Your task to perform on an android device: Go to battery settings Image 0: 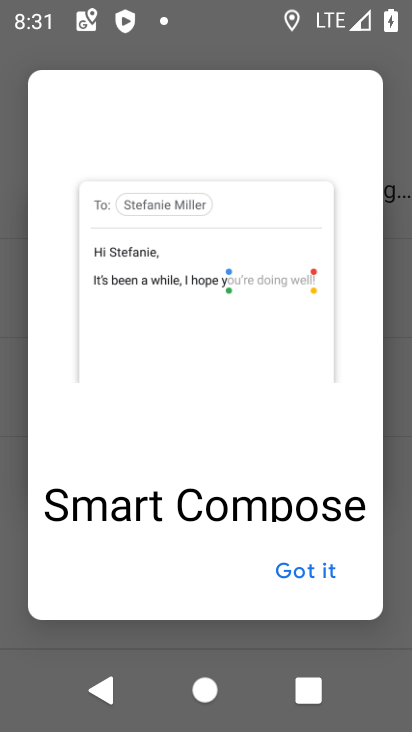
Step 0: press home button
Your task to perform on an android device: Go to battery settings Image 1: 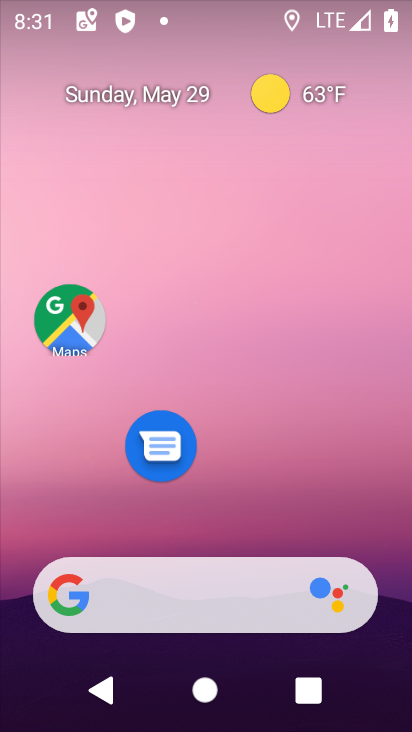
Step 1: drag from (191, 516) to (195, 172)
Your task to perform on an android device: Go to battery settings Image 2: 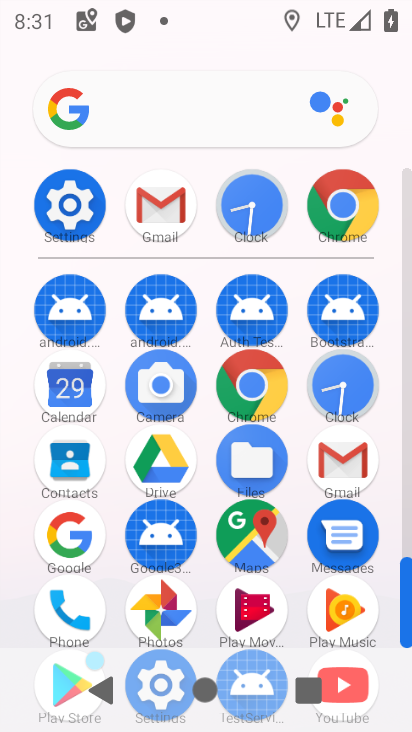
Step 2: click (50, 222)
Your task to perform on an android device: Go to battery settings Image 3: 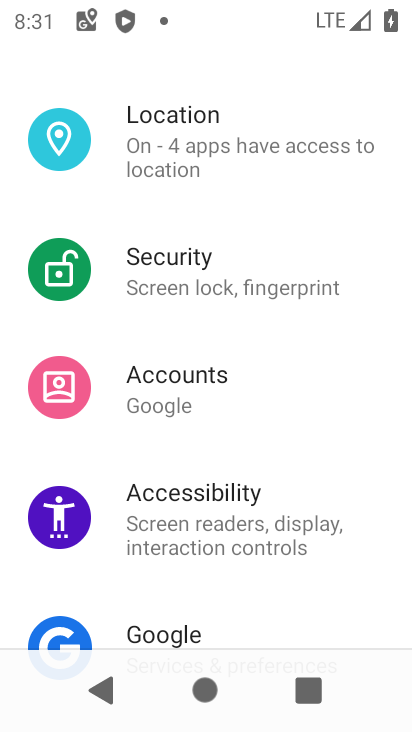
Step 3: drag from (238, 239) to (246, 445)
Your task to perform on an android device: Go to battery settings Image 4: 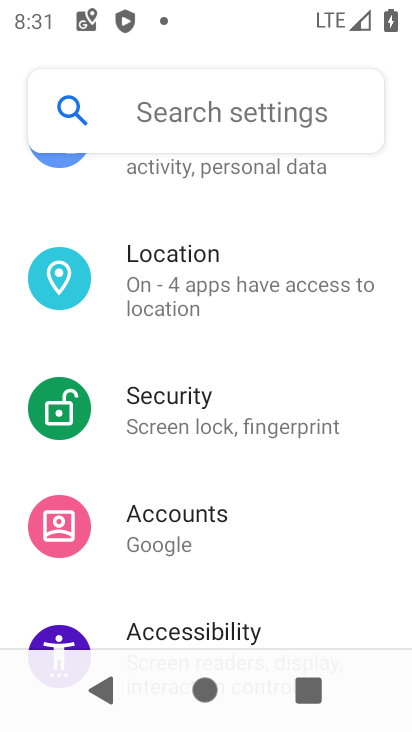
Step 4: drag from (206, 206) to (199, 485)
Your task to perform on an android device: Go to battery settings Image 5: 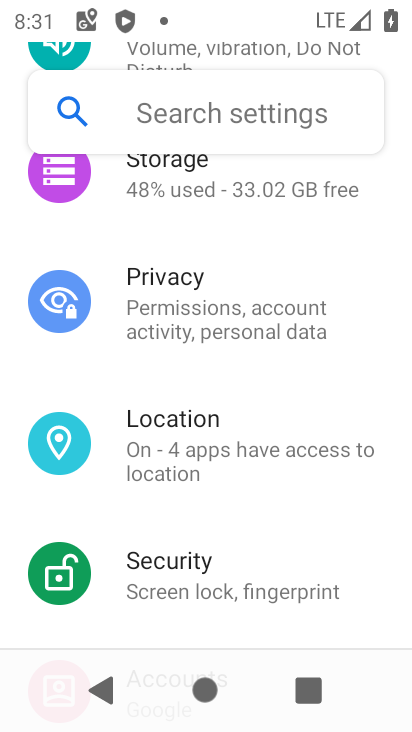
Step 5: drag from (217, 278) to (218, 495)
Your task to perform on an android device: Go to battery settings Image 6: 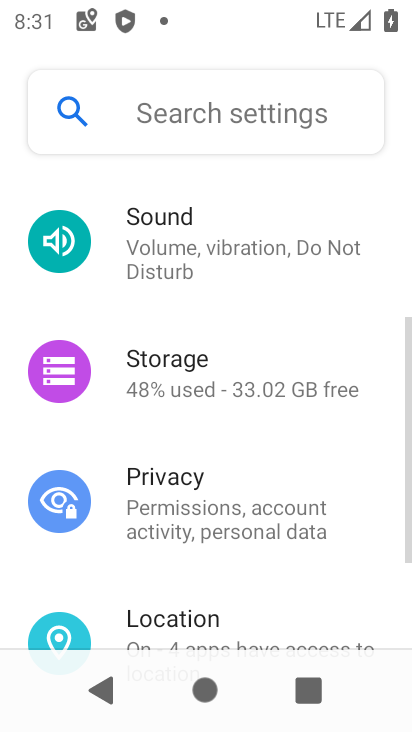
Step 6: drag from (189, 272) to (190, 541)
Your task to perform on an android device: Go to battery settings Image 7: 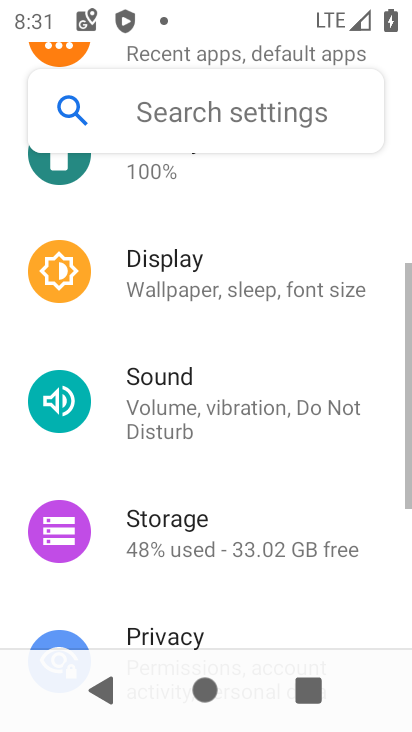
Step 7: drag from (181, 283) to (177, 528)
Your task to perform on an android device: Go to battery settings Image 8: 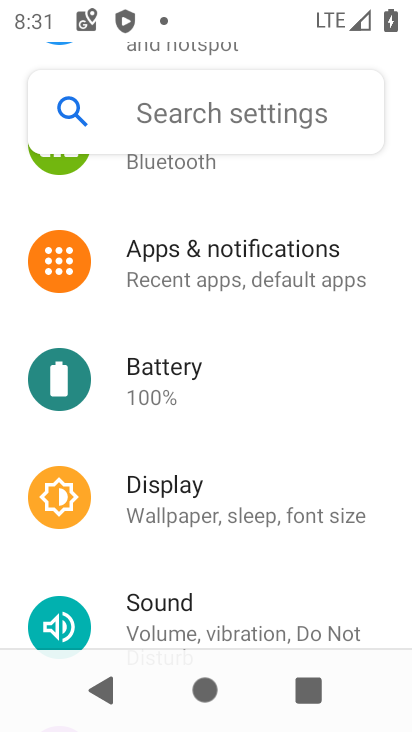
Step 8: drag from (136, 206) to (136, 420)
Your task to perform on an android device: Go to battery settings Image 9: 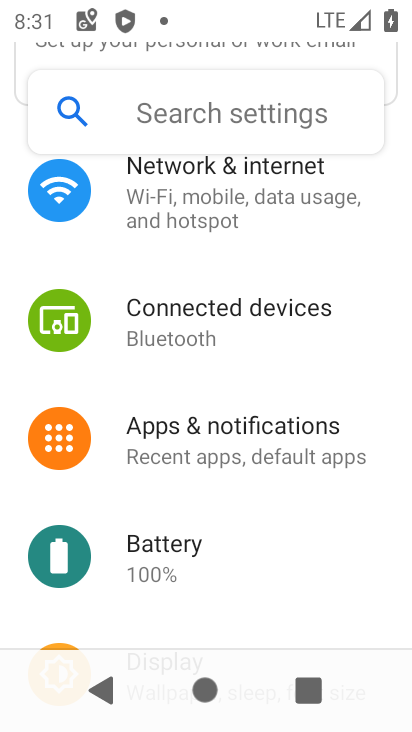
Step 9: click (143, 531)
Your task to perform on an android device: Go to battery settings Image 10: 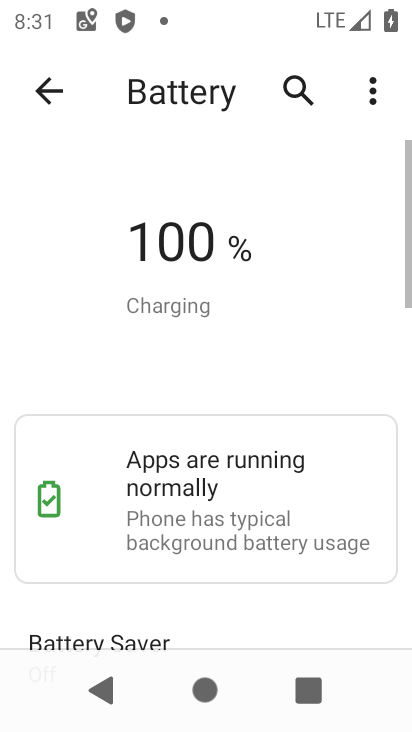
Step 10: task complete